Your task to perform on an android device: turn notification dots off Image 0: 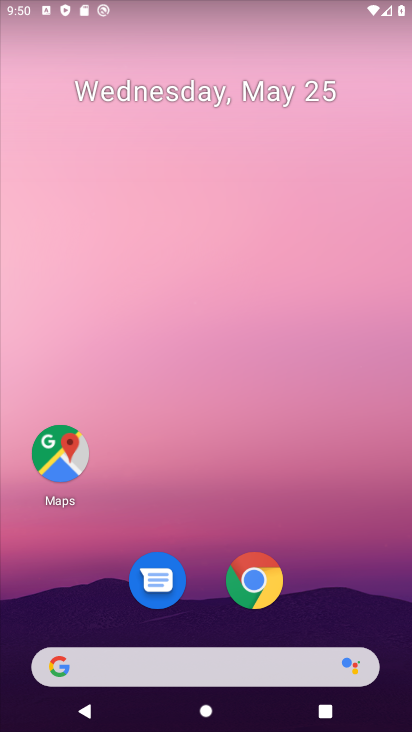
Step 0: press home button
Your task to perform on an android device: turn notification dots off Image 1: 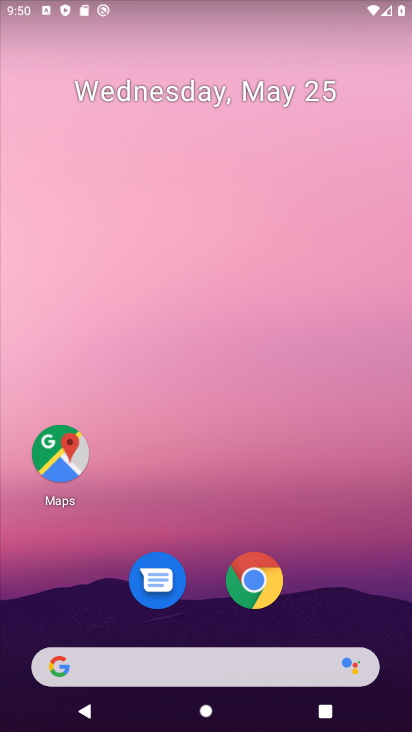
Step 1: drag from (25, 594) to (249, 37)
Your task to perform on an android device: turn notification dots off Image 2: 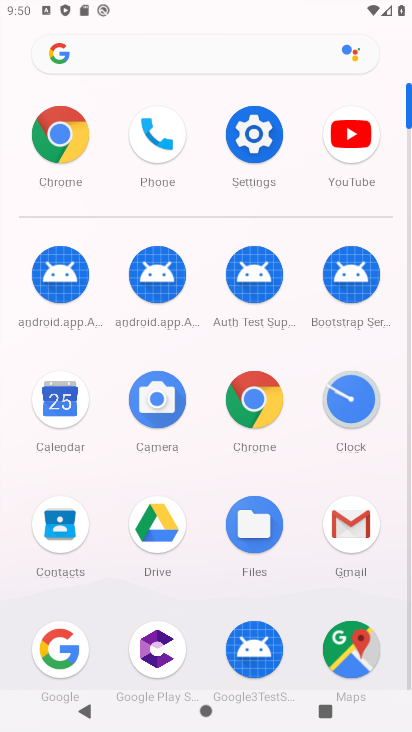
Step 2: click (251, 121)
Your task to perform on an android device: turn notification dots off Image 3: 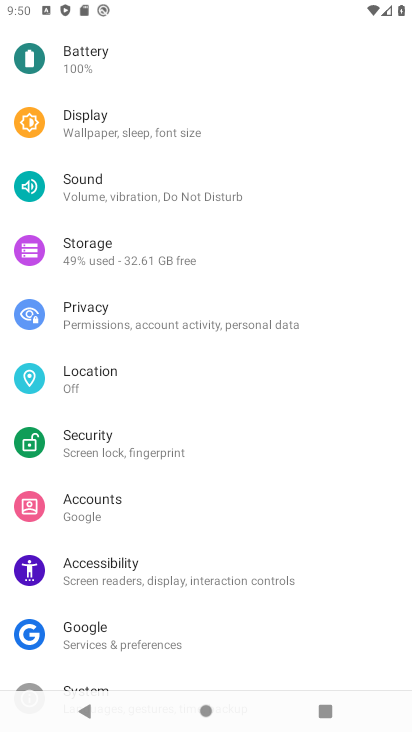
Step 3: drag from (123, 145) to (134, 487)
Your task to perform on an android device: turn notification dots off Image 4: 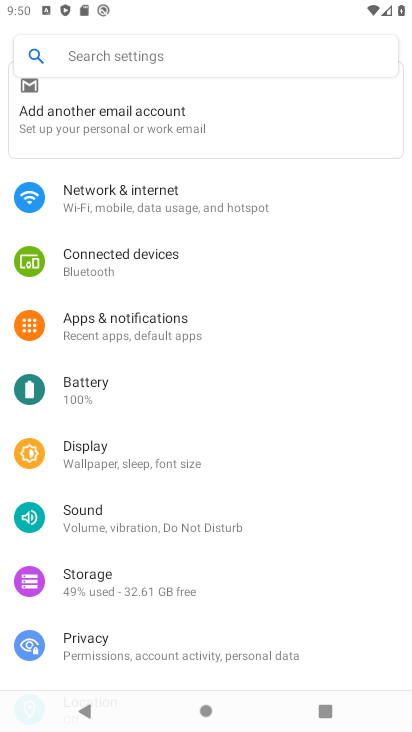
Step 4: click (172, 326)
Your task to perform on an android device: turn notification dots off Image 5: 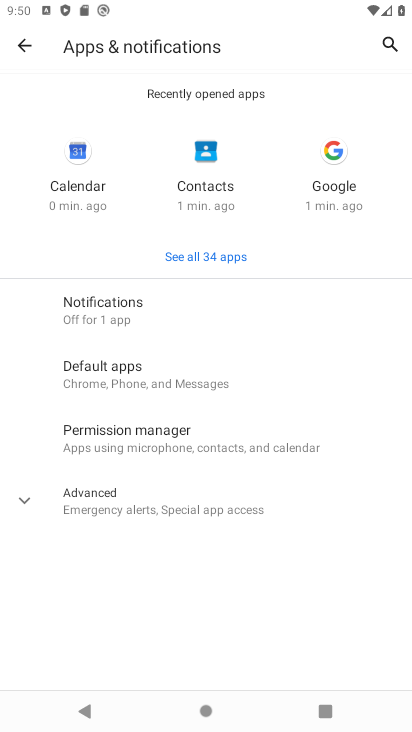
Step 5: click (180, 499)
Your task to perform on an android device: turn notification dots off Image 6: 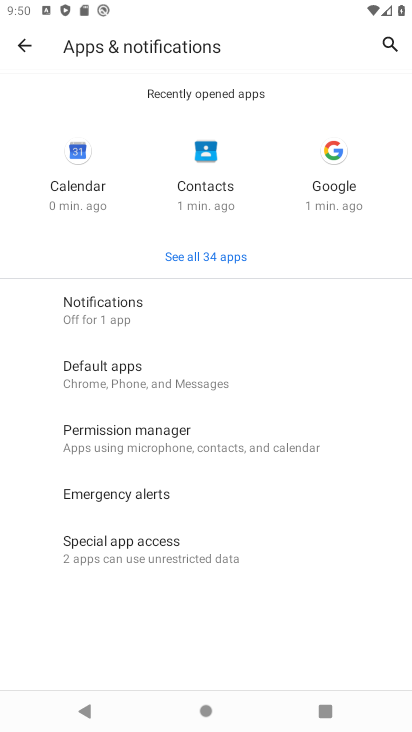
Step 6: click (151, 311)
Your task to perform on an android device: turn notification dots off Image 7: 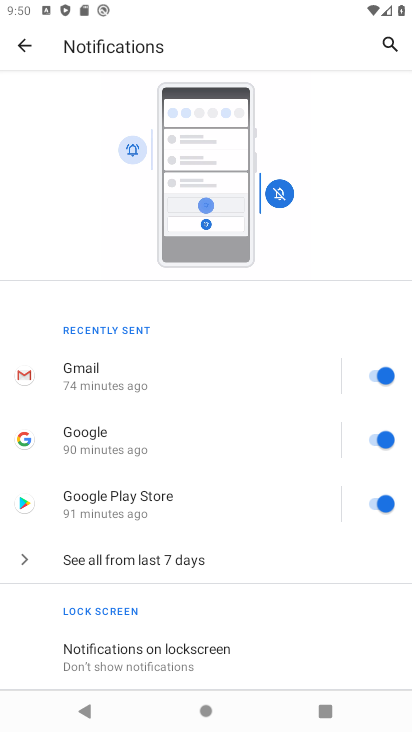
Step 7: drag from (3, 644) to (150, 223)
Your task to perform on an android device: turn notification dots off Image 8: 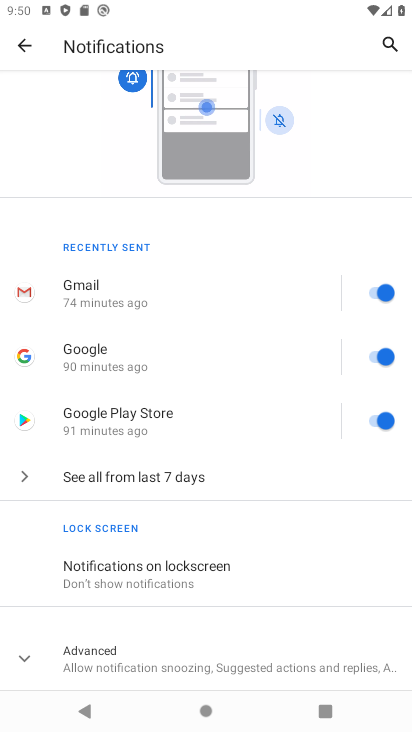
Step 8: click (165, 658)
Your task to perform on an android device: turn notification dots off Image 9: 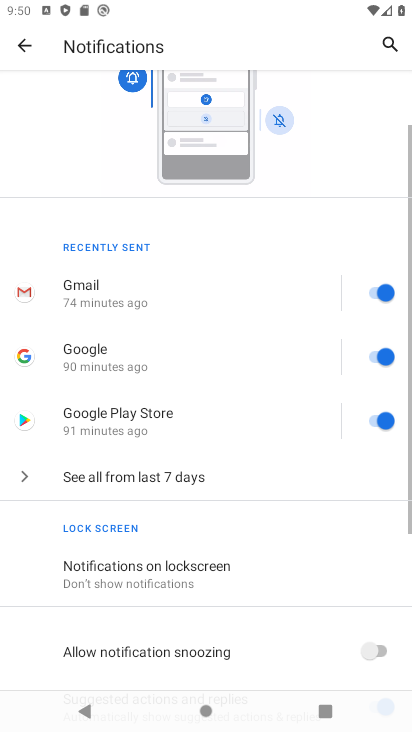
Step 9: drag from (4, 598) to (194, 247)
Your task to perform on an android device: turn notification dots off Image 10: 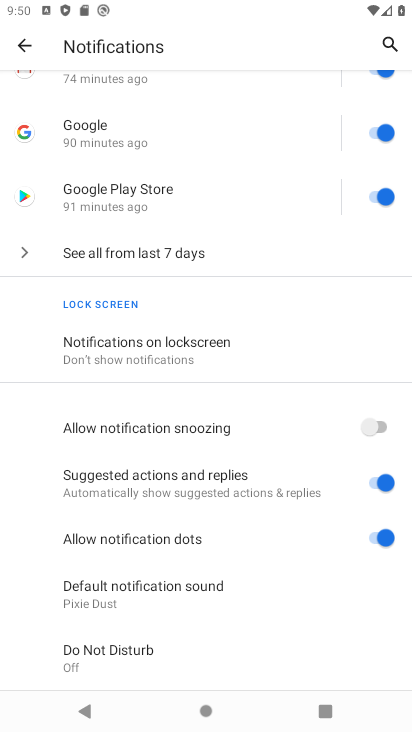
Step 10: click (384, 542)
Your task to perform on an android device: turn notification dots off Image 11: 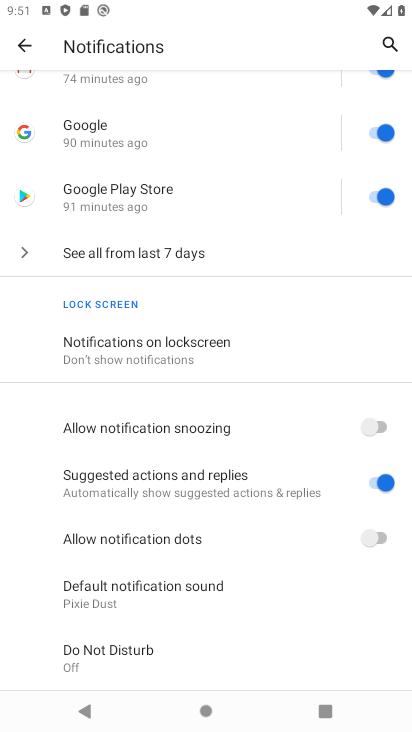
Step 11: task complete